Your task to perform on an android device: choose inbox layout in the gmail app Image 0: 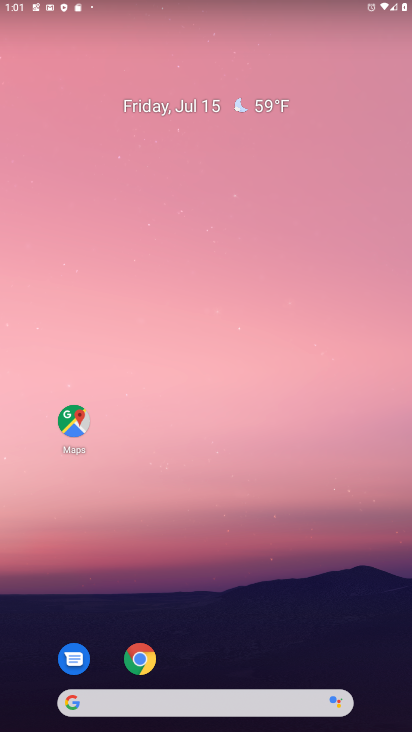
Step 0: drag from (261, 724) to (279, 230)
Your task to perform on an android device: choose inbox layout in the gmail app Image 1: 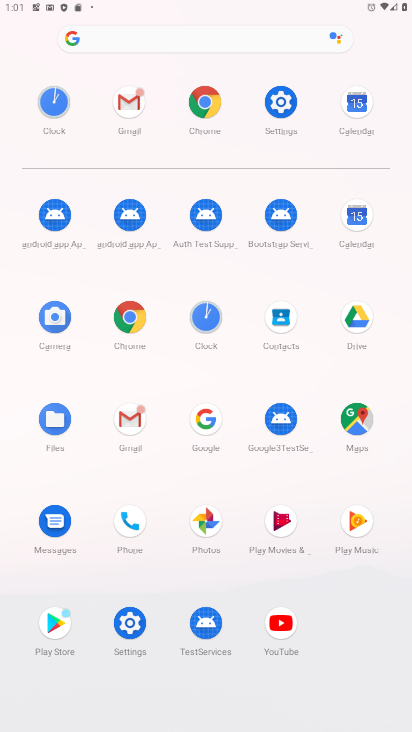
Step 1: click (136, 414)
Your task to perform on an android device: choose inbox layout in the gmail app Image 2: 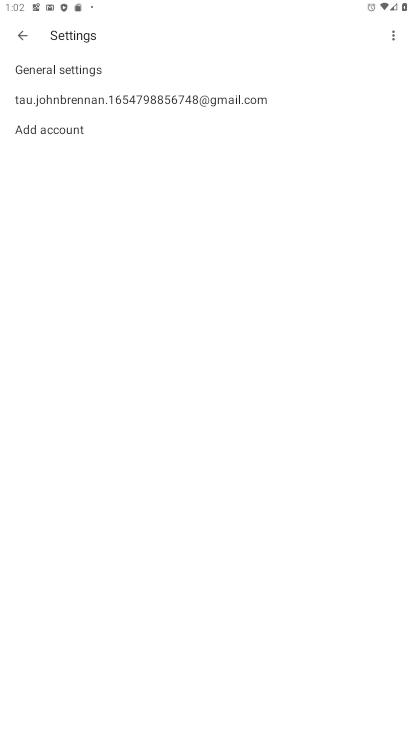
Step 2: click (61, 93)
Your task to perform on an android device: choose inbox layout in the gmail app Image 3: 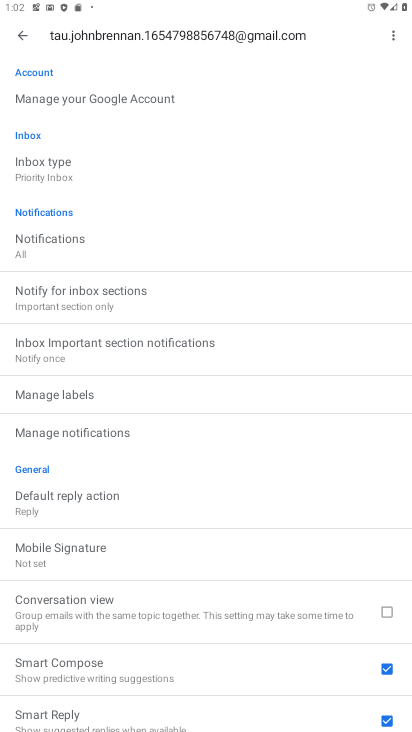
Step 3: click (51, 166)
Your task to perform on an android device: choose inbox layout in the gmail app Image 4: 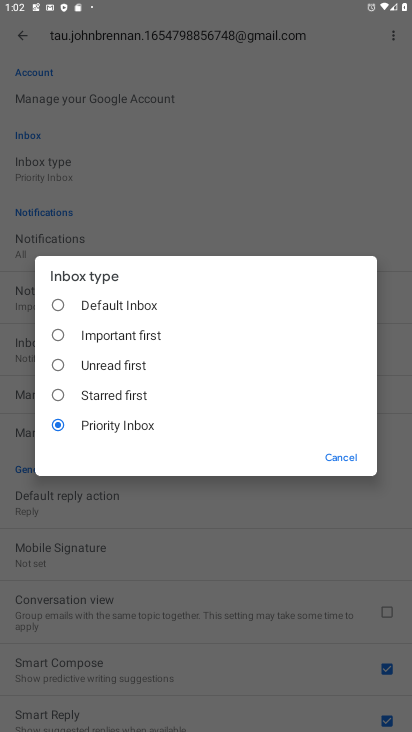
Step 4: click (345, 456)
Your task to perform on an android device: choose inbox layout in the gmail app Image 5: 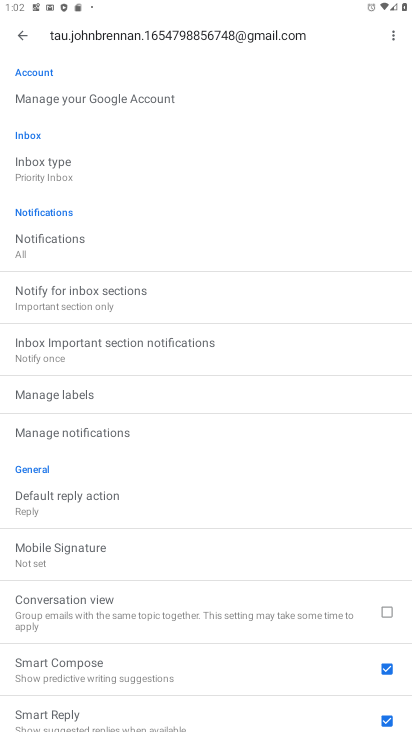
Step 5: task complete